Your task to perform on an android device: toggle translation in the chrome app Image 0: 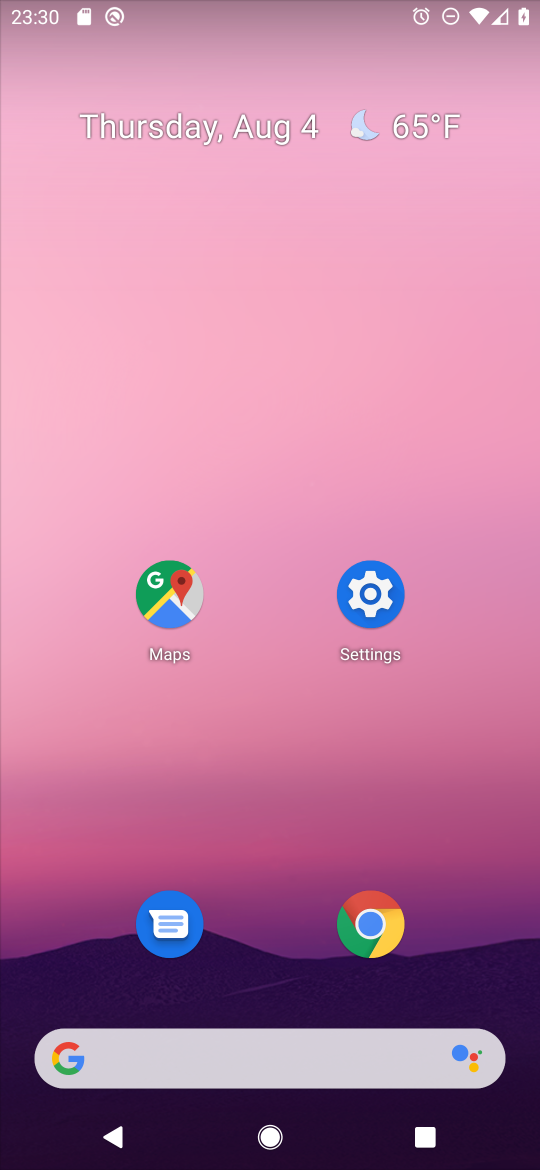
Step 0: click (363, 926)
Your task to perform on an android device: toggle translation in the chrome app Image 1: 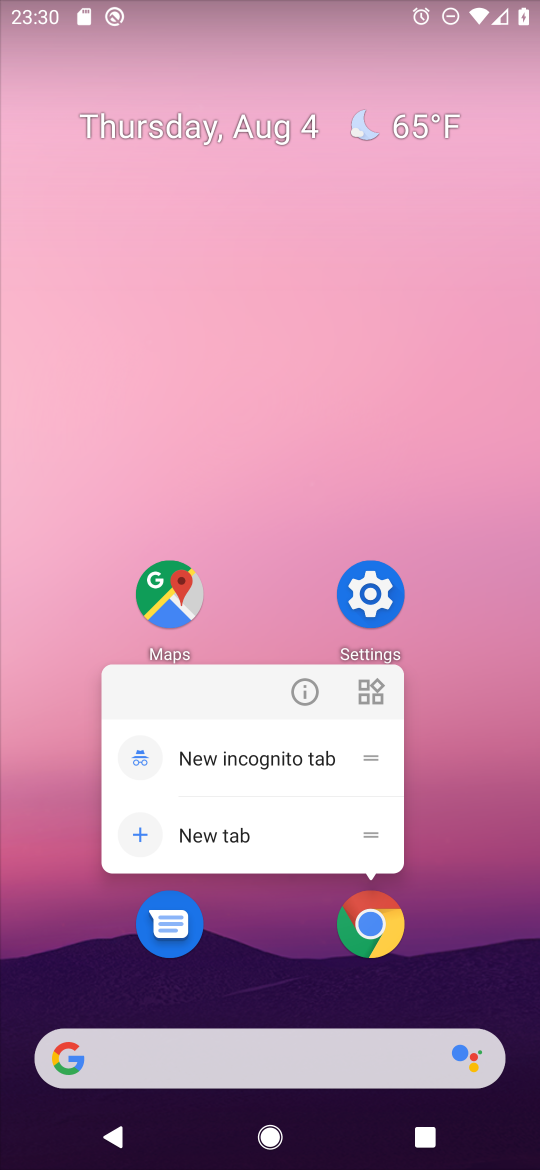
Step 1: click (363, 928)
Your task to perform on an android device: toggle translation in the chrome app Image 2: 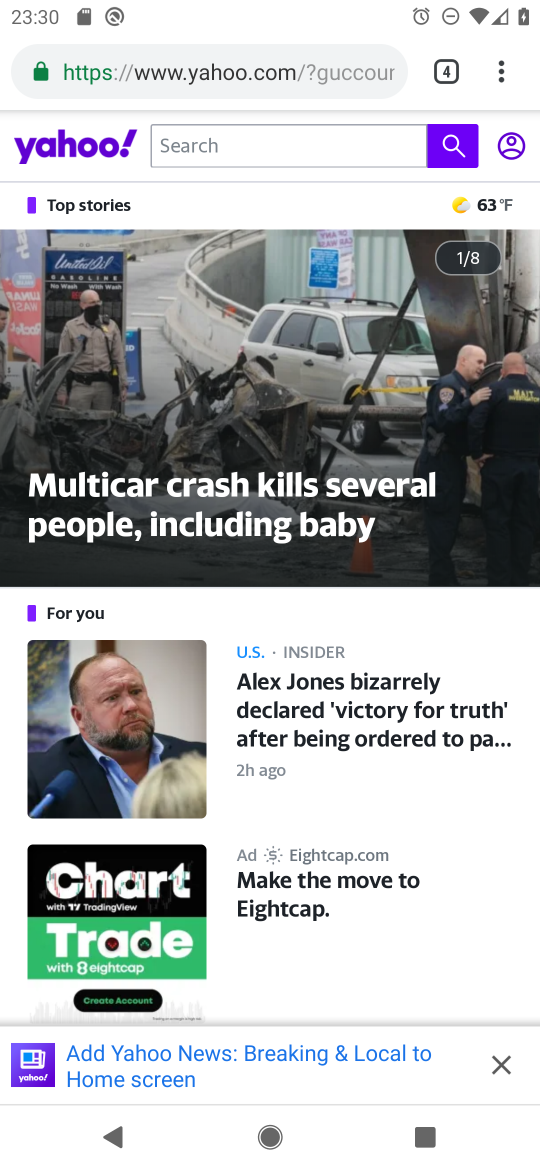
Step 2: drag from (501, 69) to (289, 860)
Your task to perform on an android device: toggle translation in the chrome app Image 3: 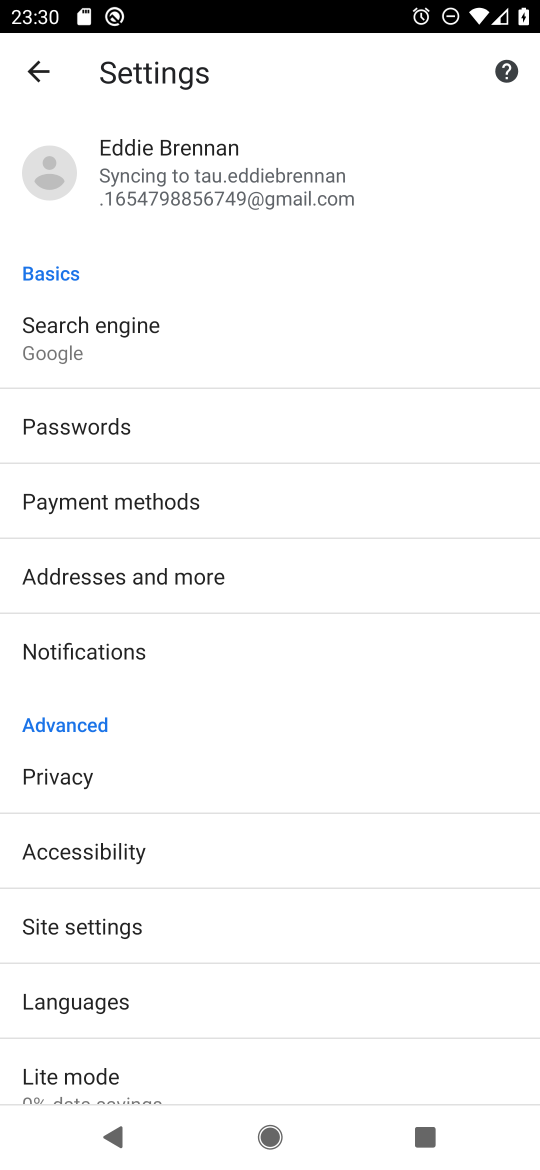
Step 3: click (98, 996)
Your task to perform on an android device: toggle translation in the chrome app Image 4: 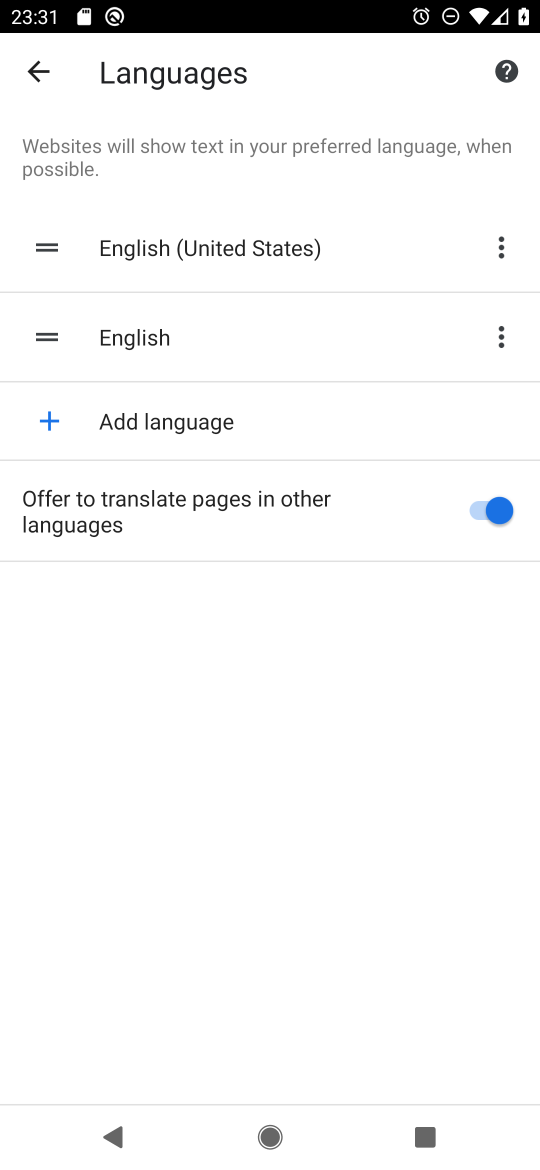
Step 4: click (484, 514)
Your task to perform on an android device: toggle translation in the chrome app Image 5: 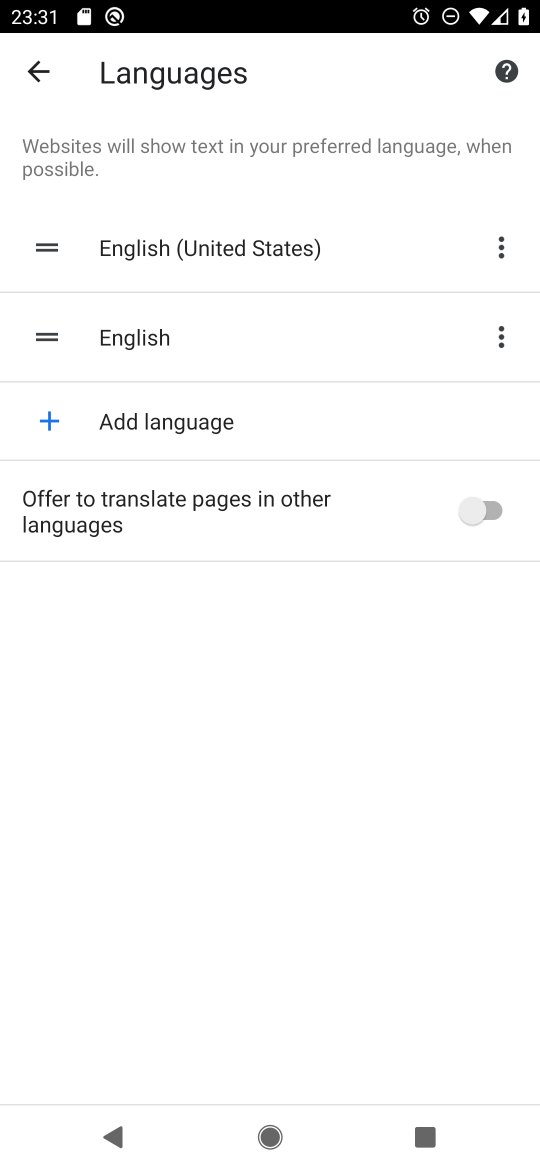
Step 5: task complete